Your task to perform on an android device: Open Google Maps Image 0: 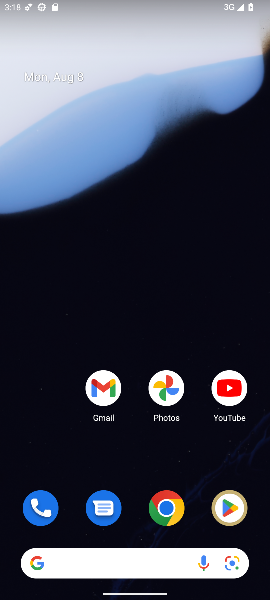
Step 0: drag from (151, 446) to (153, 29)
Your task to perform on an android device: Open Google Maps Image 1: 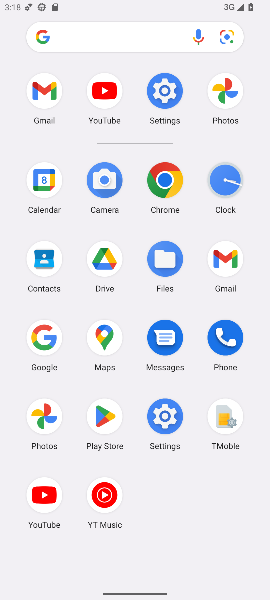
Step 1: click (102, 336)
Your task to perform on an android device: Open Google Maps Image 2: 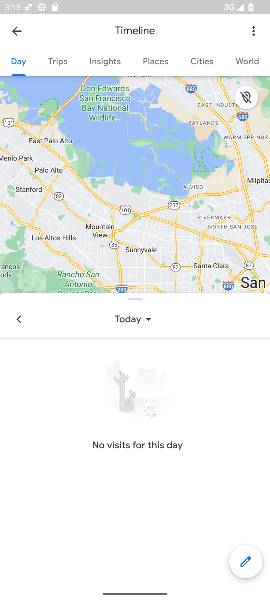
Step 2: task complete